Your task to perform on an android device: turn vacation reply on in the gmail app Image 0: 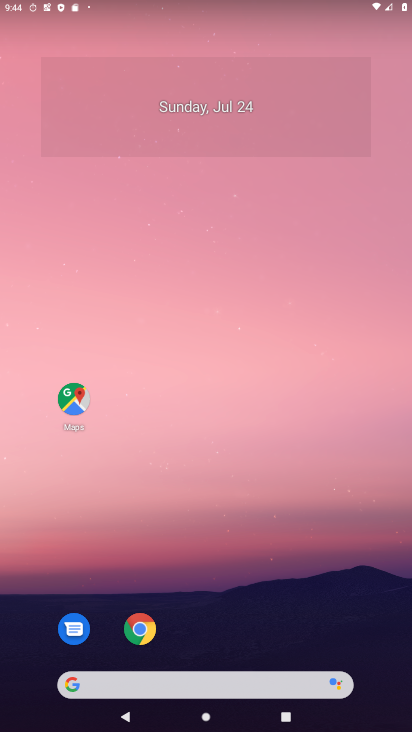
Step 0: drag from (154, 538) to (114, 12)
Your task to perform on an android device: turn vacation reply on in the gmail app Image 1: 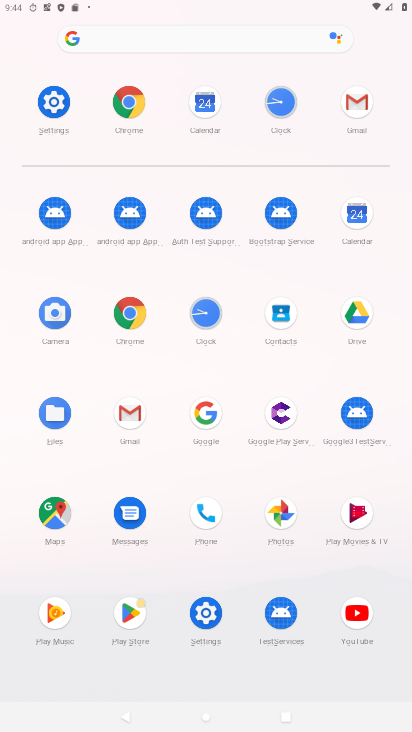
Step 1: click (125, 421)
Your task to perform on an android device: turn vacation reply on in the gmail app Image 2: 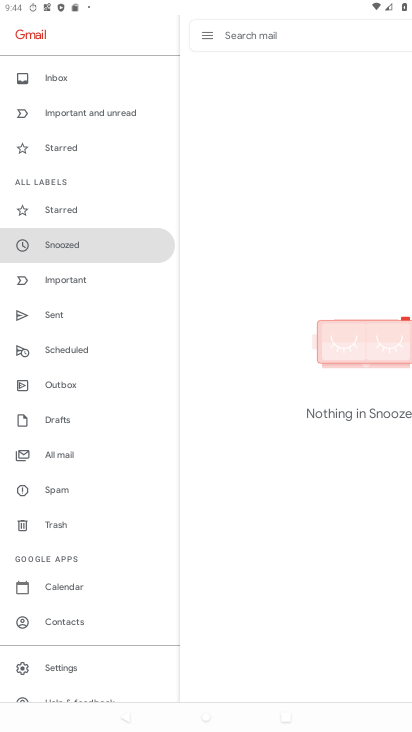
Step 2: click (56, 663)
Your task to perform on an android device: turn vacation reply on in the gmail app Image 3: 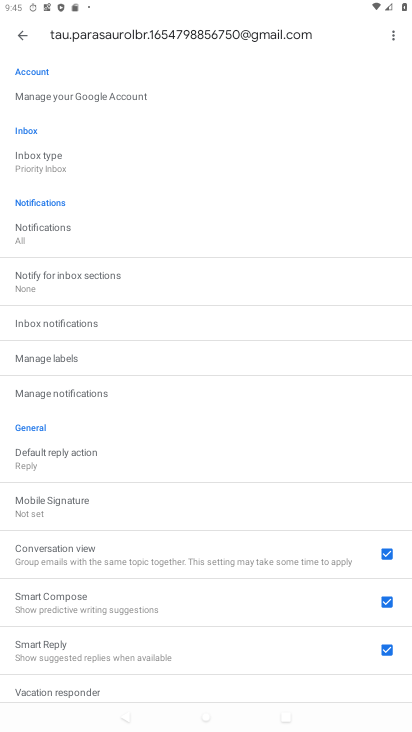
Step 3: drag from (145, 584) to (187, 265)
Your task to perform on an android device: turn vacation reply on in the gmail app Image 4: 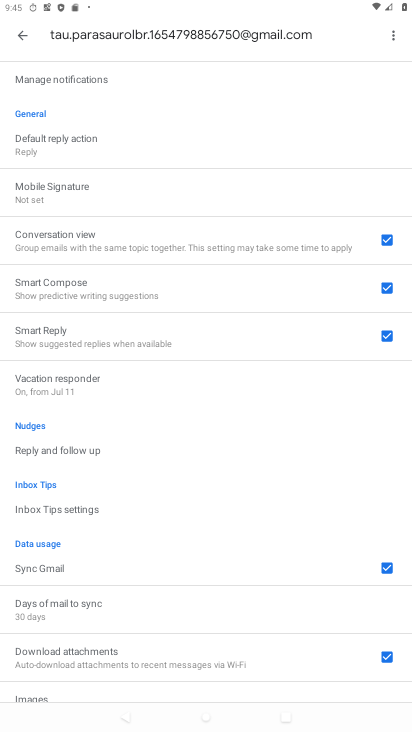
Step 4: click (108, 384)
Your task to perform on an android device: turn vacation reply on in the gmail app Image 5: 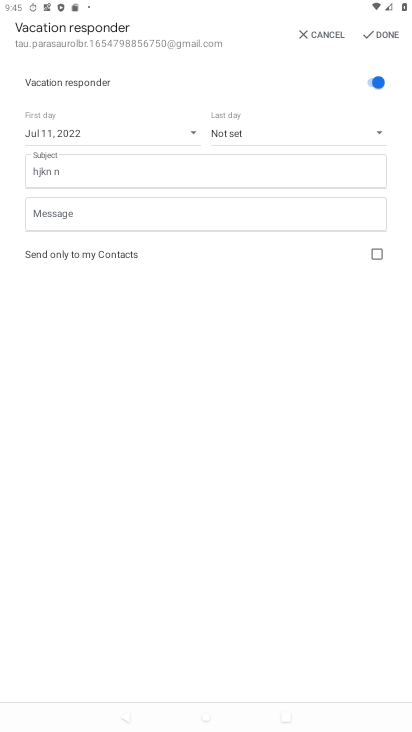
Step 5: task complete